Your task to perform on an android device: Go to Amazon Image 0: 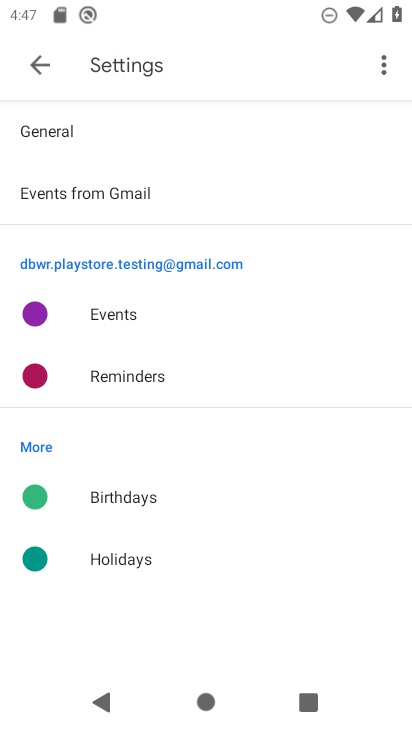
Step 0: press home button
Your task to perform on an android device: Go to Amazon Image 1: 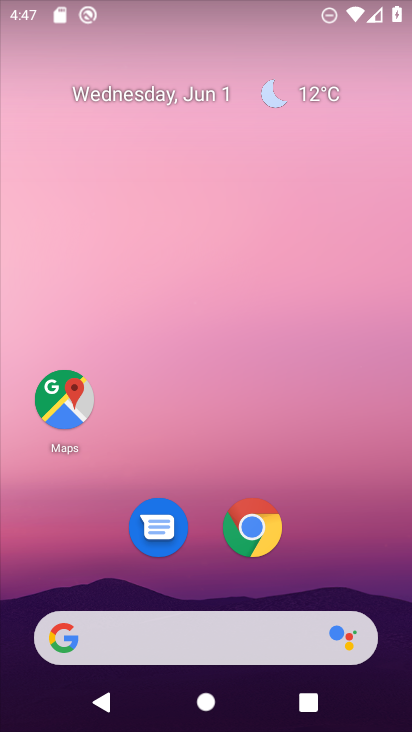
Step 1: click (253, 529)
Your task to perform on an android device: Go to Amazon Image 2: 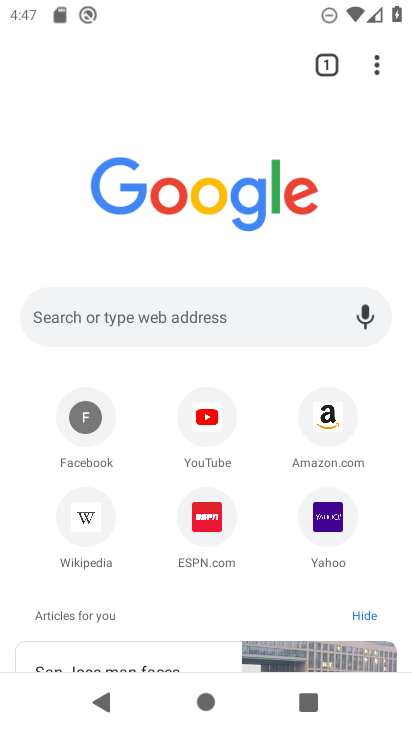
Step 2: click (347, 412)
Your task to perform on an android device: Go to Amazon Image 3: 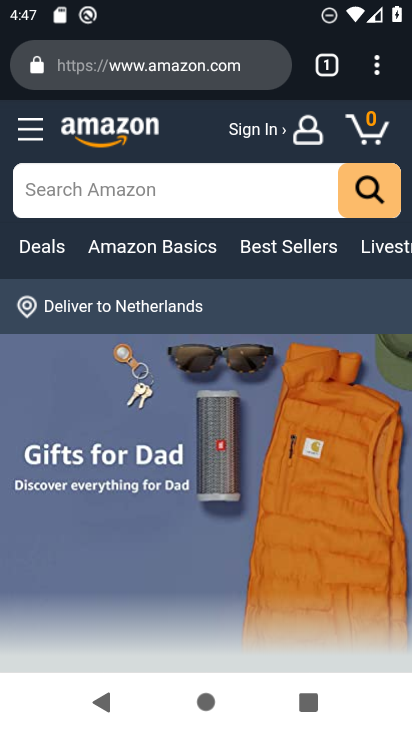
Step 3: task complete